Your task to perform on an android device: open sync settings in chrome Image 0: 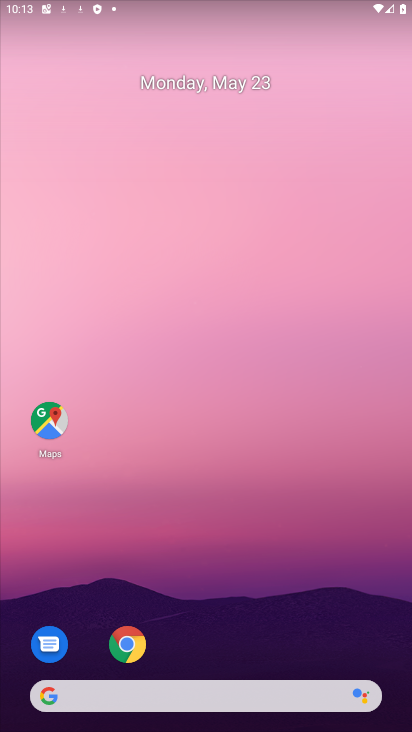
Step 0: drag from (284, 721) to (217, 207)
Your task to perform on an android device: open sync settings in chrome Image 1: 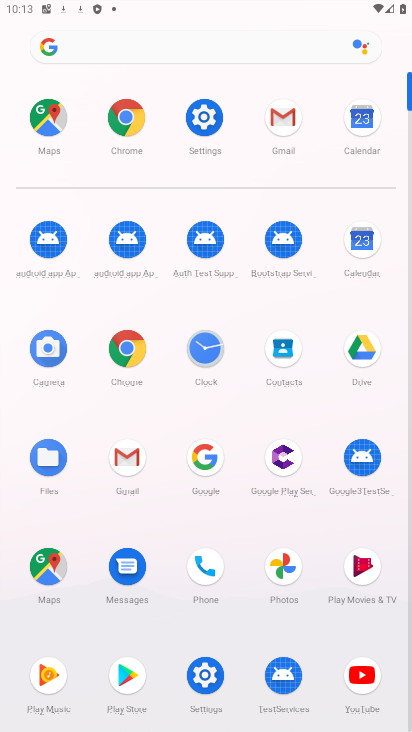
Step 1: click (119, 132)
Your task to perform on an android device: open sync settings in chrome Image 2: 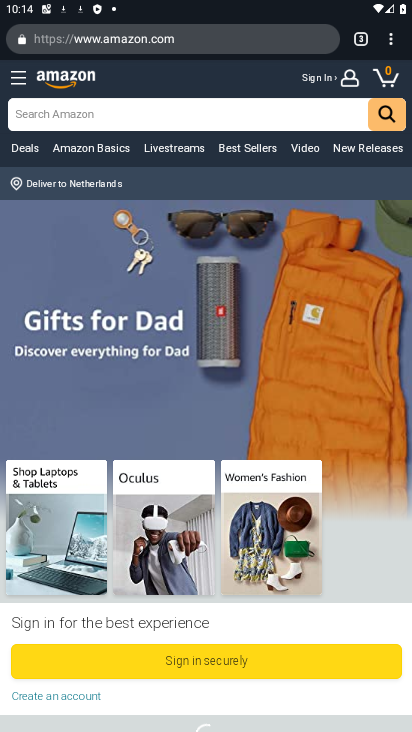
Step 2: click (386, 45)
Your task to perform on an android device: open sync settings in chrome Image 3: 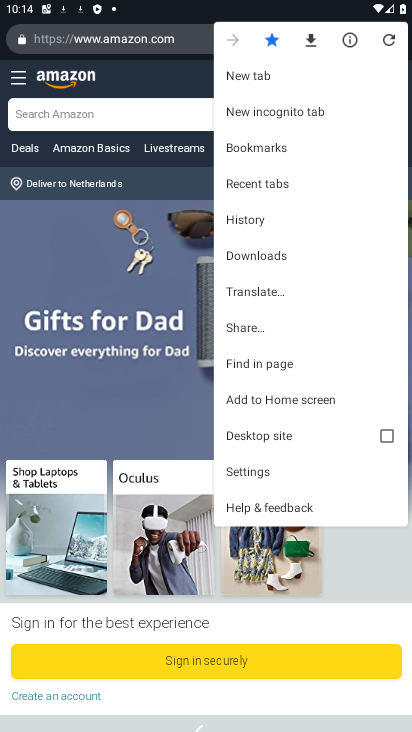
Step 3: click (277, 468)
Your task to perform on an android device: open sync settings in chrome Image 4: 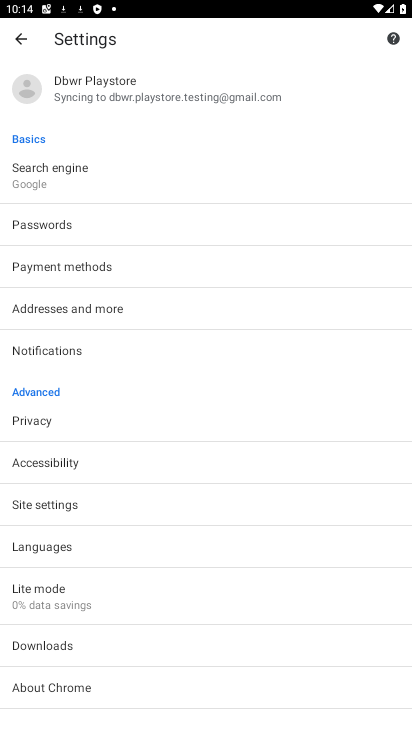
Step 4: task complete